Your task to perform on an android device: turn notification dots off Image 0: 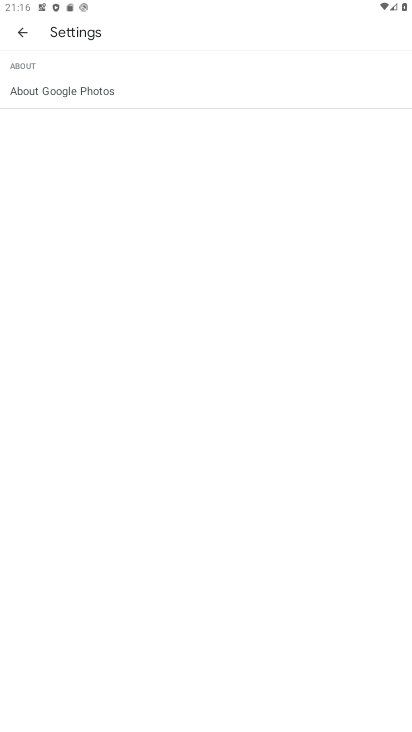
Step 0: press home button
Your task to perform on an android device: turn notification dots off Image 1: 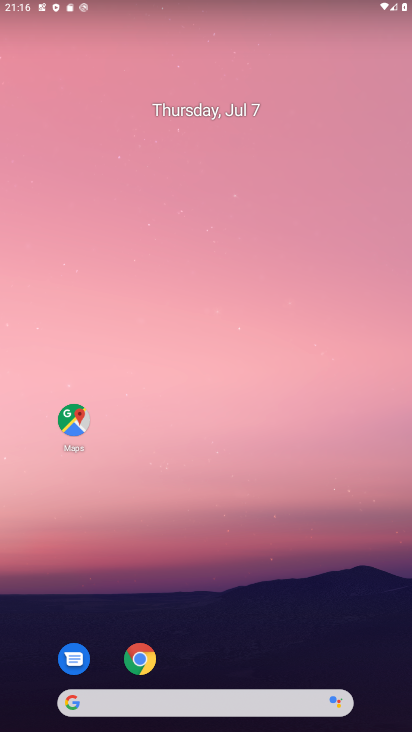
Step 1: drag from (206, 638) to (230, 49)
Your task to perform on an android device: turn notification dots off Image 2: 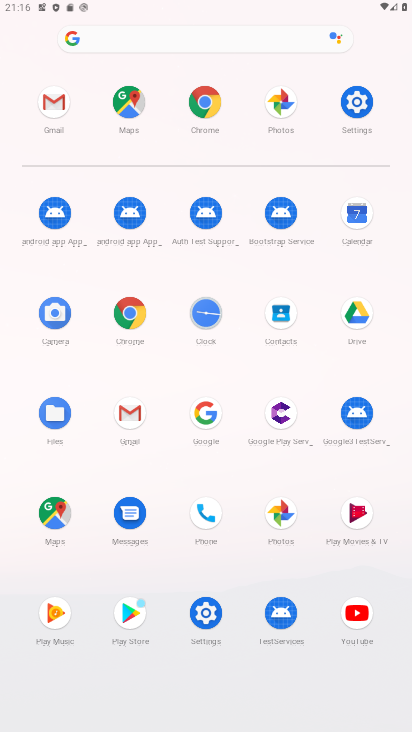
Step 2: click (215, 614)
Your task to perform on an android device: turn notification dots off Image 3: 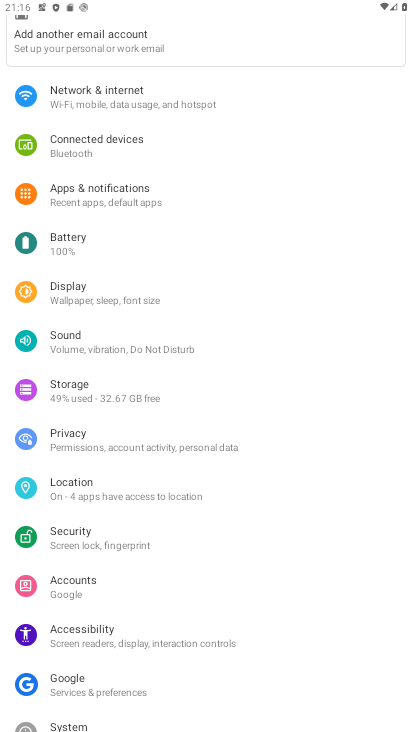
Step 3: click (118, 202)
Your task to perform on an android device: turn notification dots off Image 4: 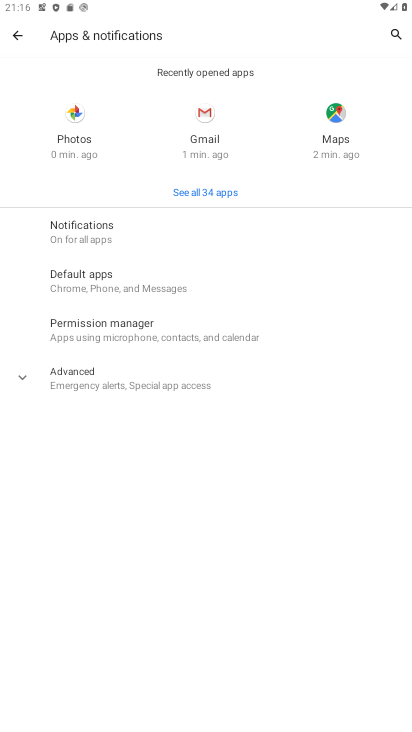
Step 4: click (169, 225)
Your task to perform on an android device: turn notification dots off Image 5: 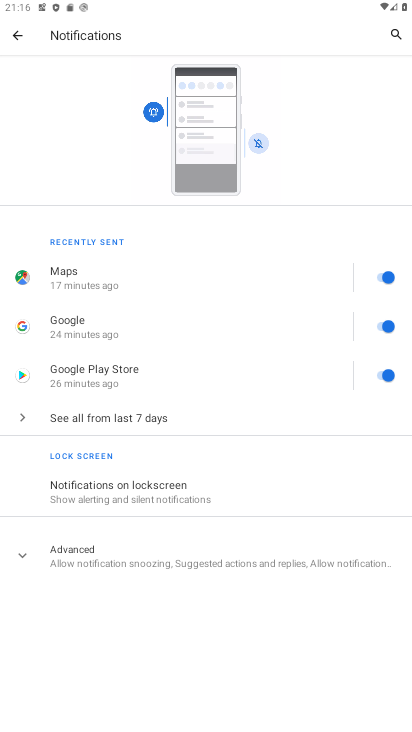
Step 5: click (181, 562)
Your task to perform on an android device: turn notification dots off Image 6: 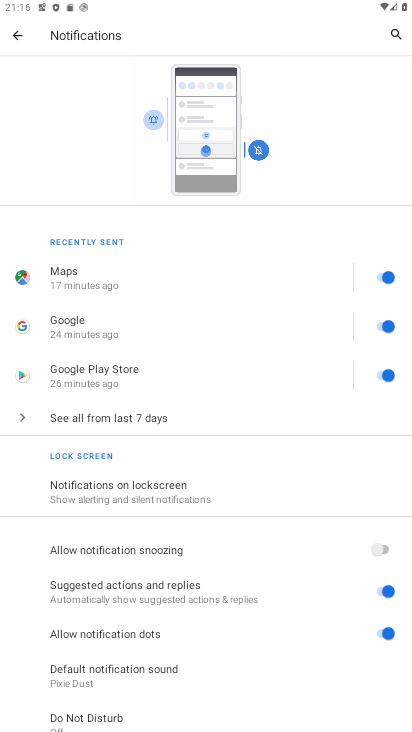
Step 6: drag from (196, 602) to (210, 513)
Your task to perform on an android device: turn notification dots off Image 7: 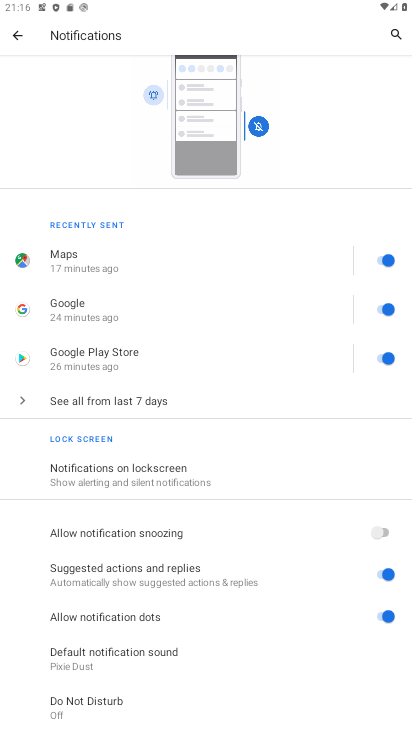
Step 7: click (381, 612)
Your task to perform on an android device: turn notification dots off Image 8: 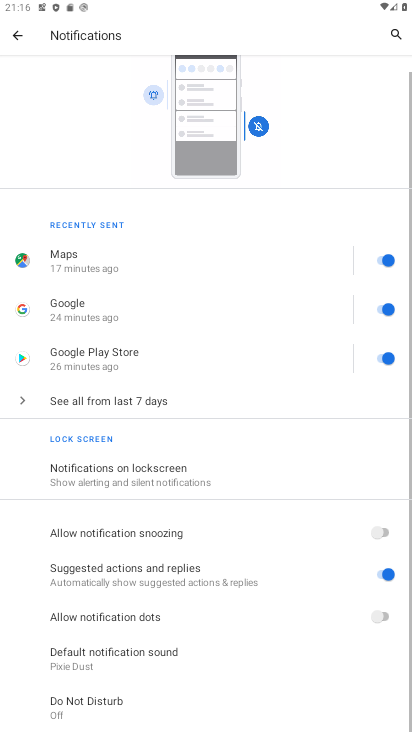
Step 8: task complete